Your task to perform on an android device: turn notification dots off Image 0: 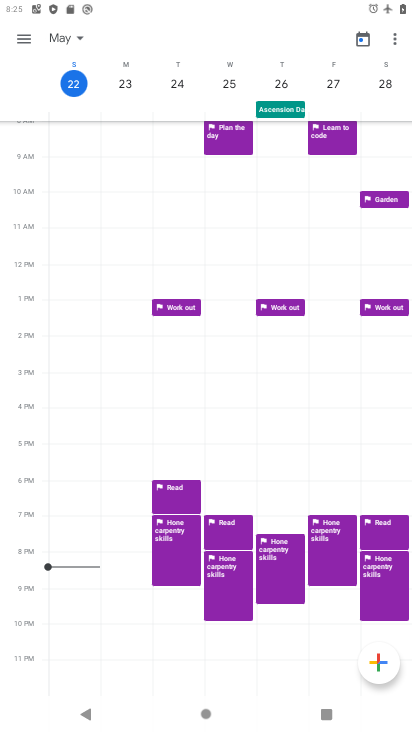
Step 0: press home button
Your task to perform on an android device: turn notification dots off Image 1: 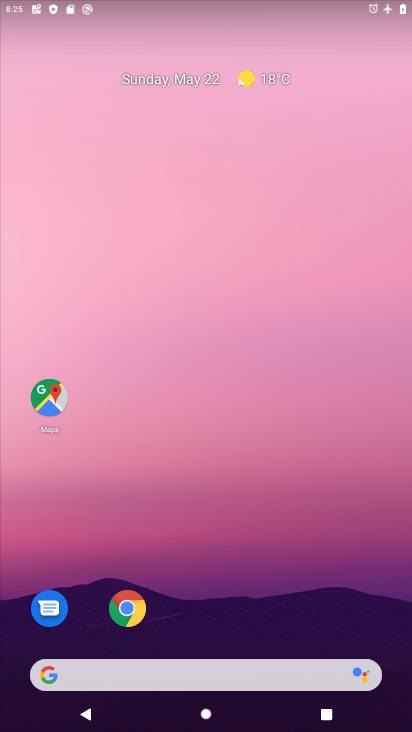
Step 1: drag from (236, 709) to (239, 45)
Your task to perform on an android device: turn notification dots off Image 2: 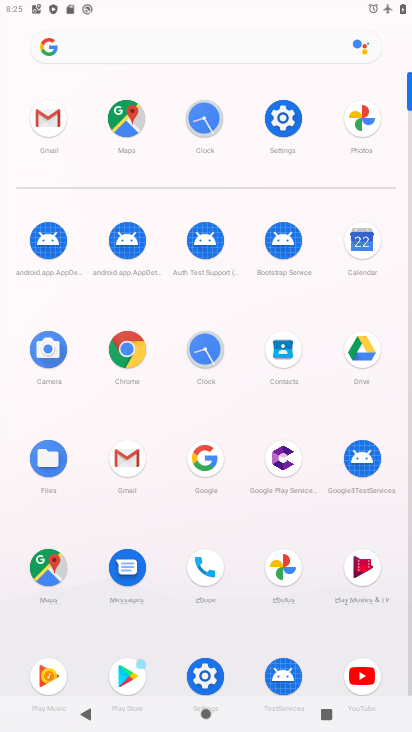
Step 2: click (277, 109)
Your task to perform on an android device: turn notification dots off Image 3: 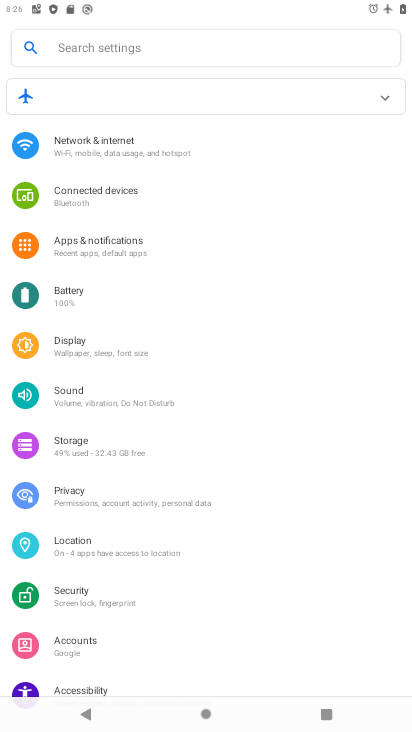
Step 3: click (114, 248)
Your task to perform on an android device: turn notification dots off Image 4: 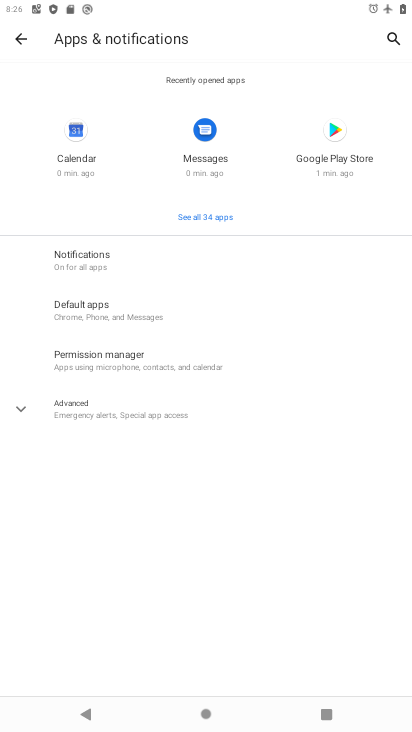
Step 4: click (90, 257)
Your task to perform on an android device: turn notification dots off Image 5: 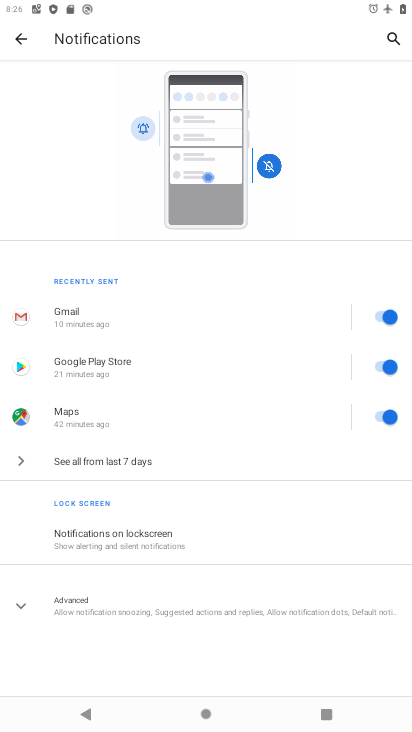
Step 5: click (99, 608)
Your task to perform on an android device: turn notification dots off Image 6: 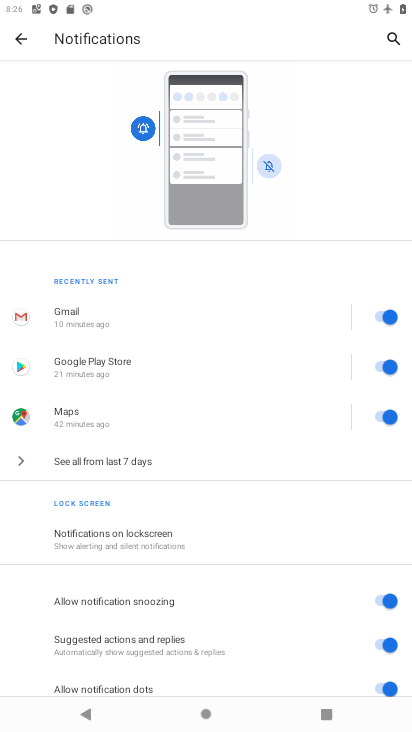
Step 6: drag from (174, 678) to (205, 447)
Your task to perform on an android device: turn notification dots off Image 7: 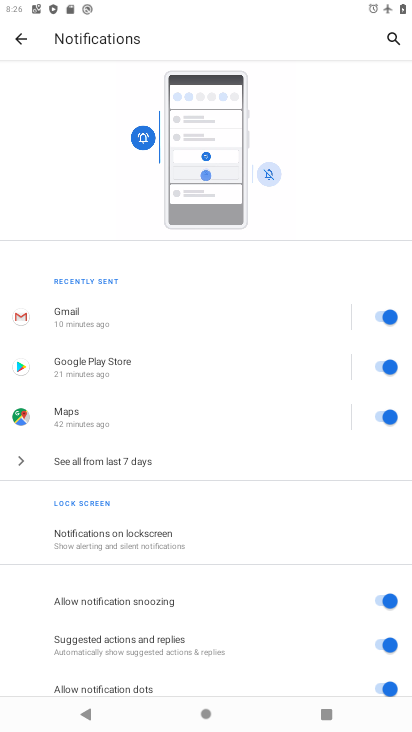
Step 7: click (383, 685)
Your task to perform on an android device: turn notification dots off Image 8: 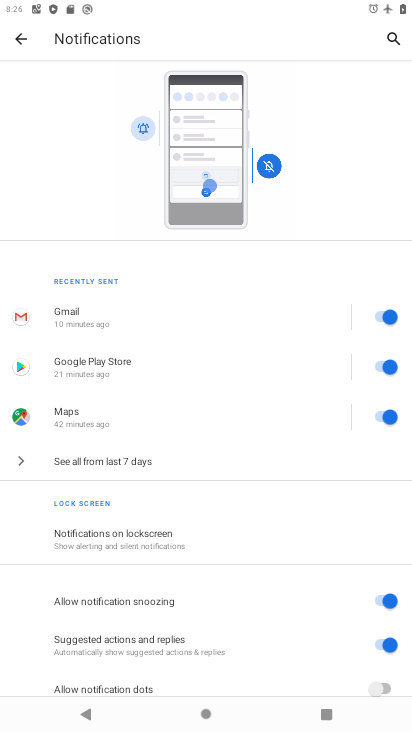
Step 8: task complete